Your task to perform on an android device: turn off translation in the chrome app Image 0: 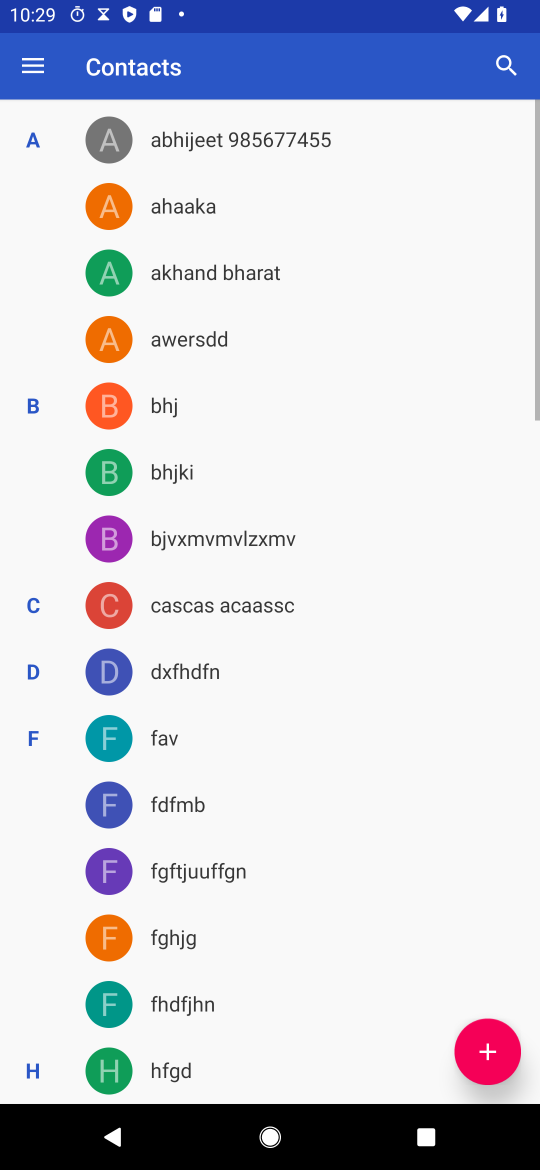
Step 0: press back button
Your task to perform on an android device: turn off translation in the chrome app Image 1: 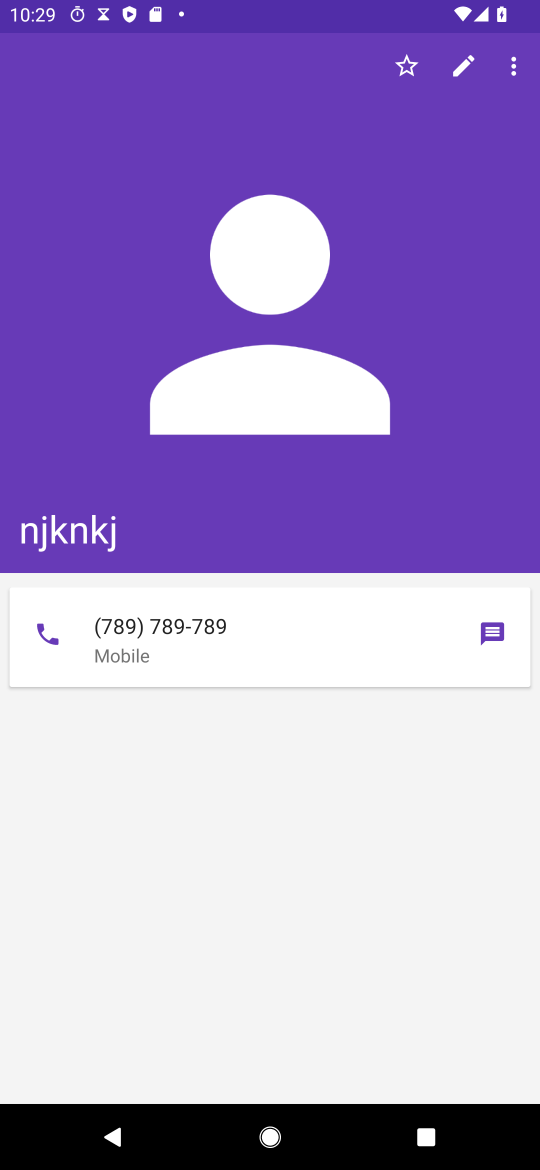
Step 1: press home button
Your task to perform on an android device: turn off translation in the chrome app Image 2: 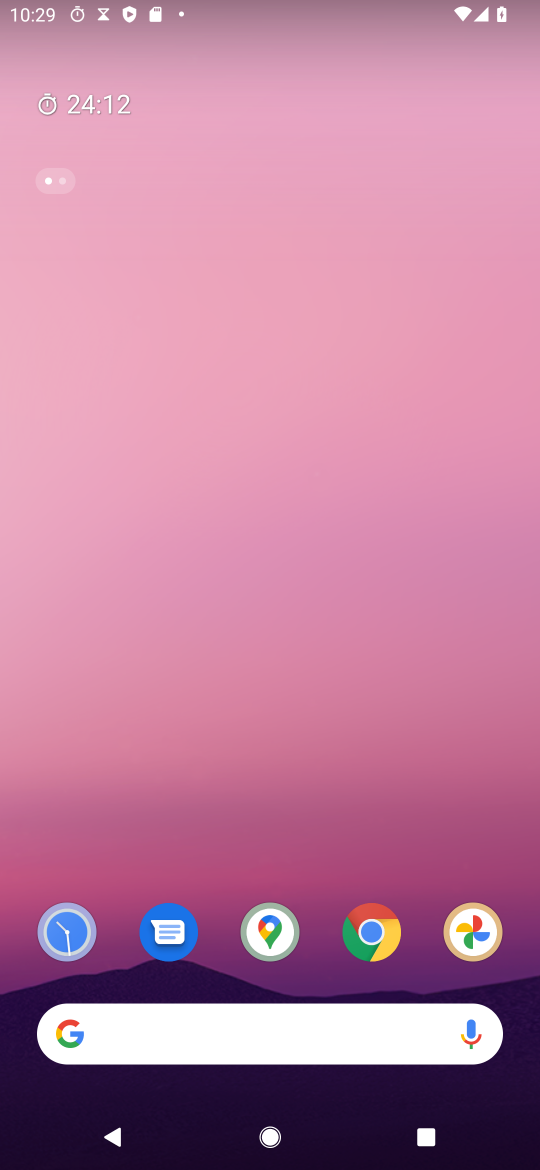
Step 2: click (368, 927)
Your task to perform on an android device: turn off translation in the chrome app Image 3: 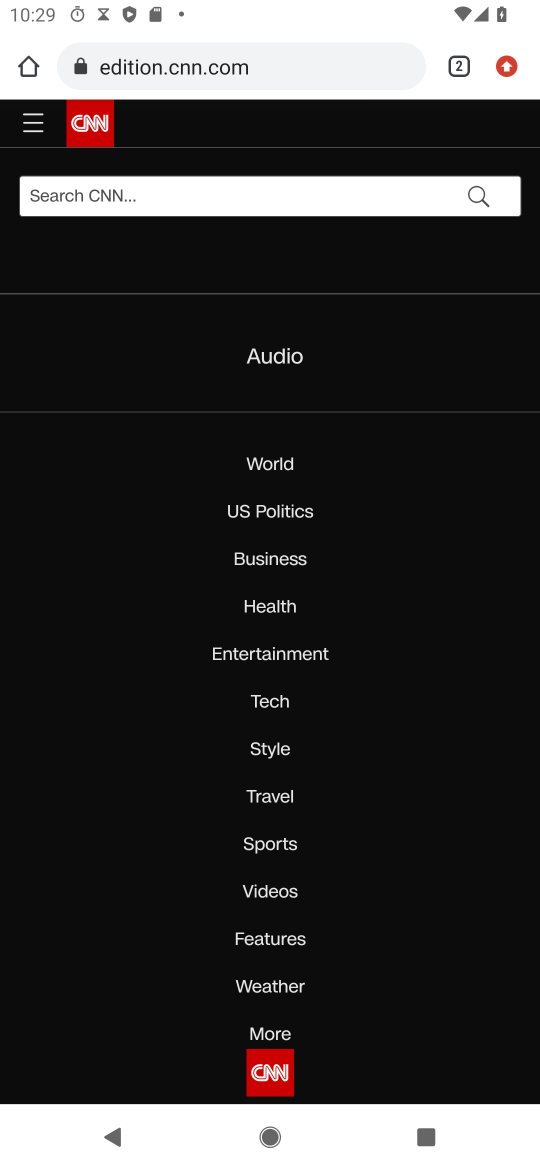
Step 3: click (507, 84)
Your task to perform on an android device: turn off translation in the chrome app Image 4: 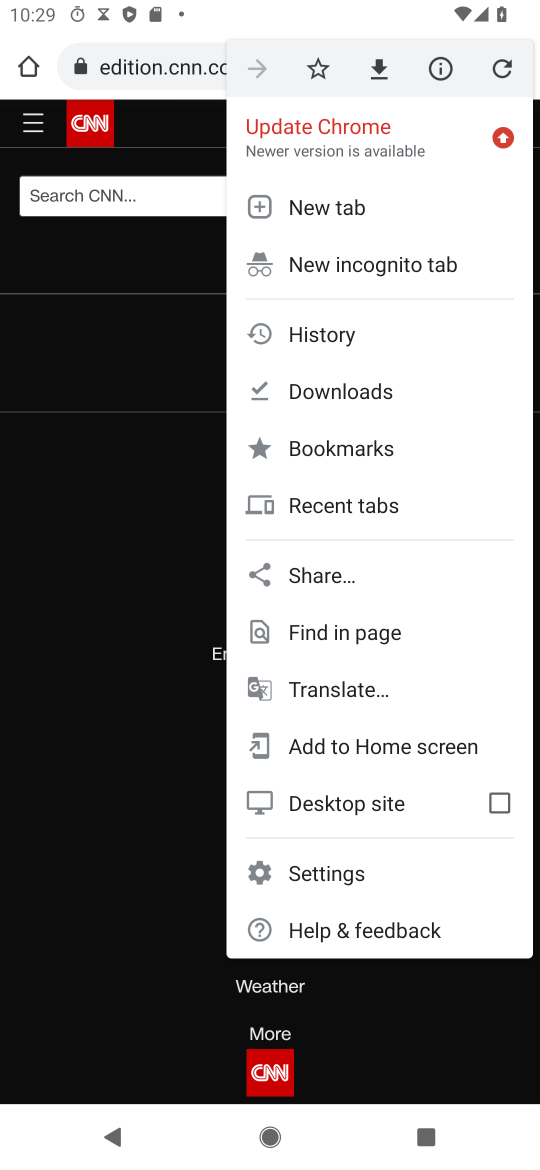
Step 4: click (343, 872)
Your task to perform on an android device: turn off translation in the chrome app Image 5: 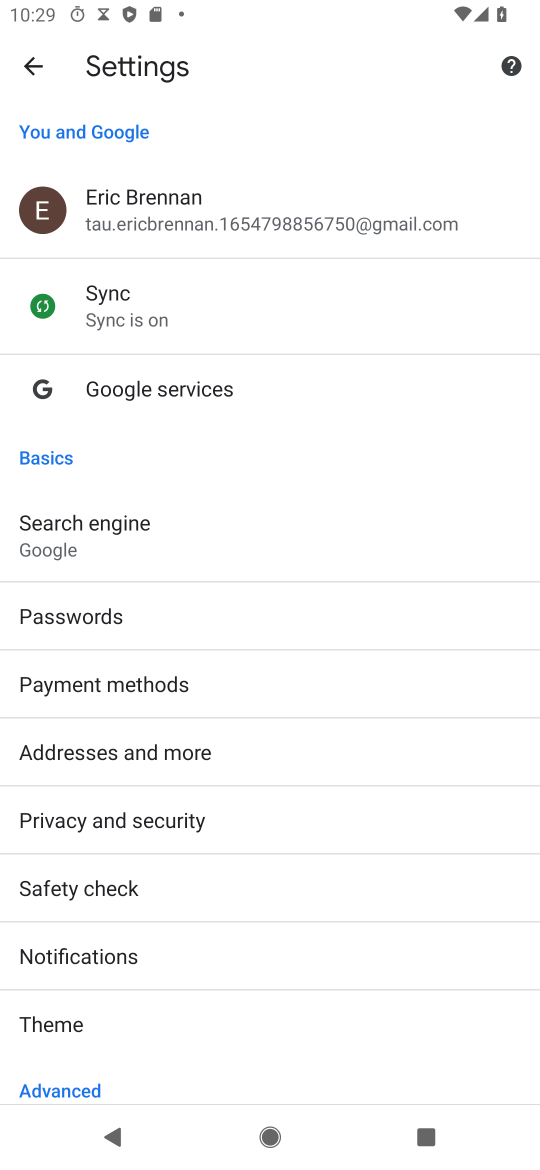
Step 5: drag from (219, 1024) to (178, 443)
Your task to perform on an android device: turn off translation in the chrome app Image 6: 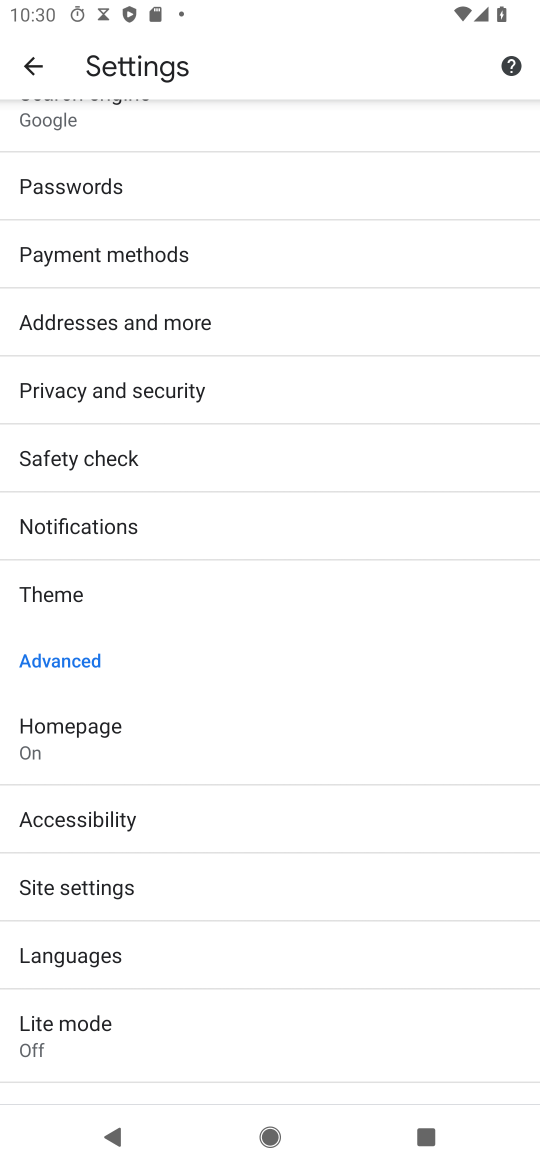
Step 6: click (199, 945)
Your task to perform on an android device: turn off translation in the chrome app Image 7: 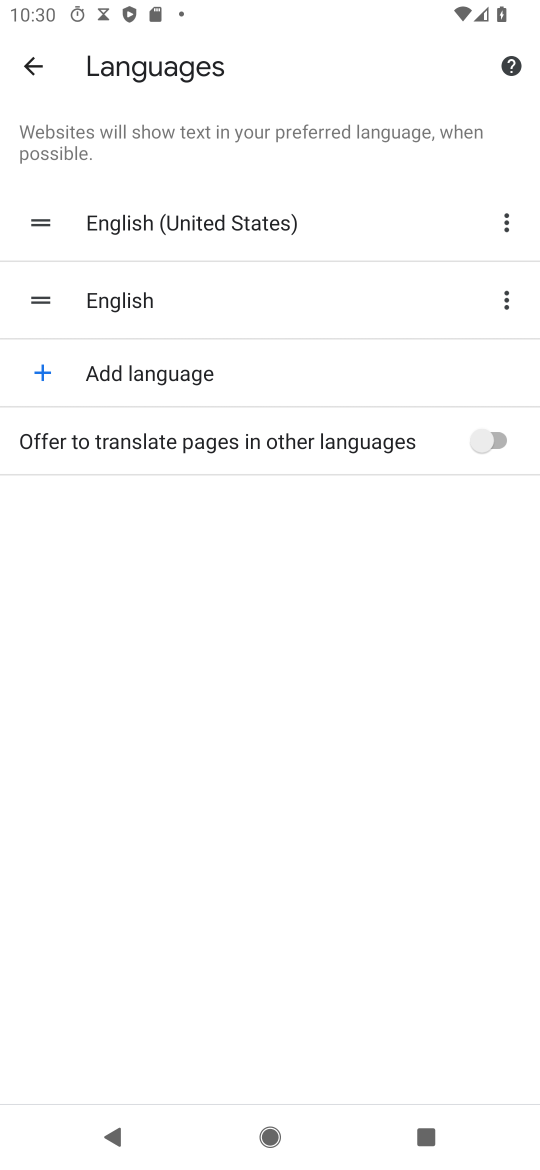
Step 7: task complete